Your task to perform on an android device: Go to Yahoo.com Image 0: 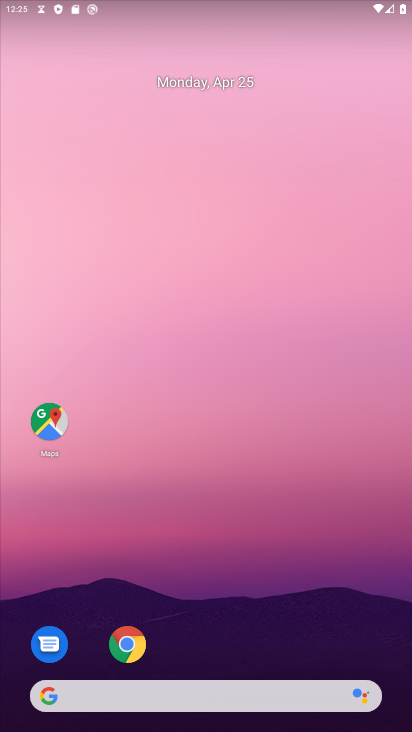
Step 0: click (127, 643)
Your task to perform on an android device: Go to Yahoo.com Image 1: 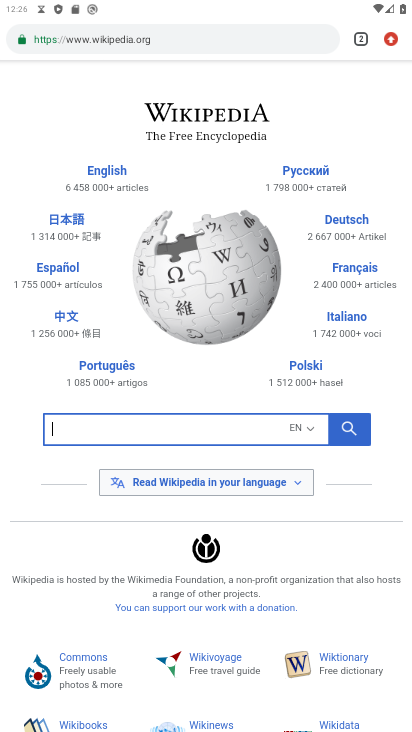
Step 1: click (158, 40)
Your task to perform on an android device: Go to Yahoo.com Image 2: 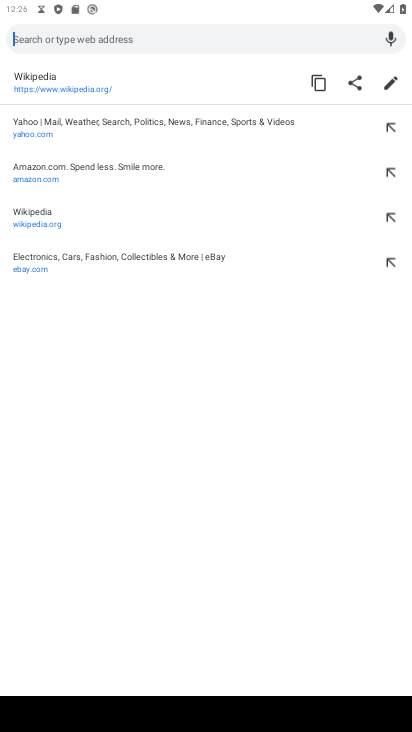
Step 2: click (47, 129)
Your task to perform on an android device: Go to Yahoo.com Image 3: 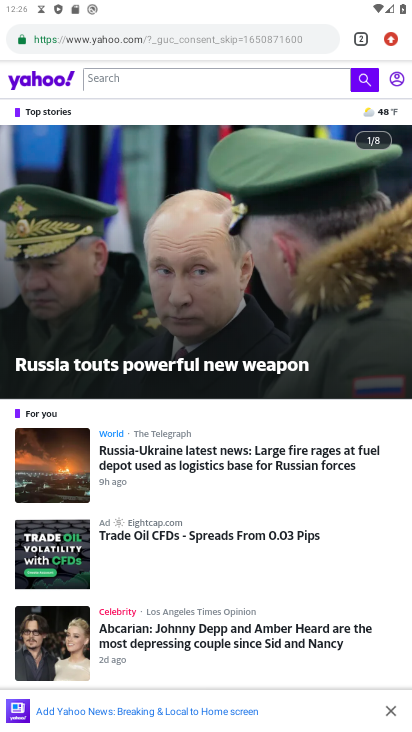
Step 3: task complete